Your task to perform on an android device: turn on location history Image 0: 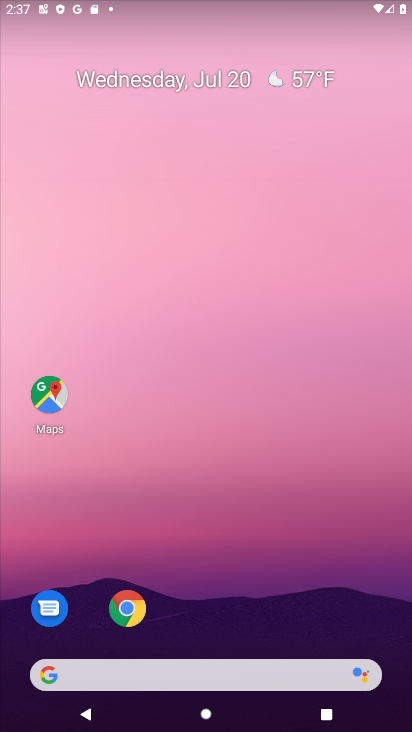
Step 0: drag from (193, 614) to (207, 234)
Your task to perform on an android device: turn on location history Image 1: 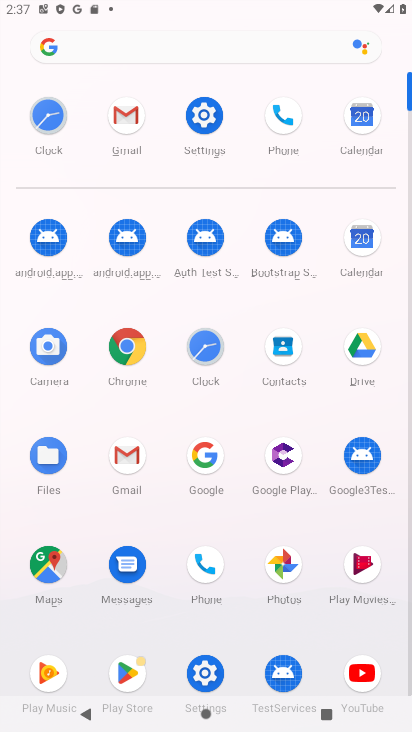
Step 1: click (200, 113)
Your task to perform on an android device: turn on location history Image 2: 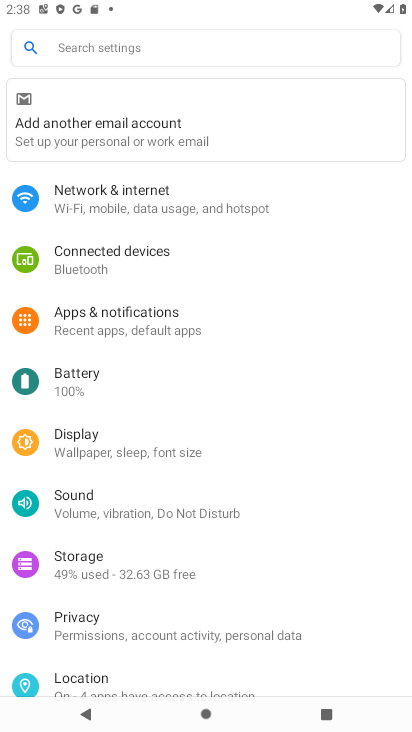
Step 2: click (79, 673)
Your task to perform on an android device: turn on location history Image 3: 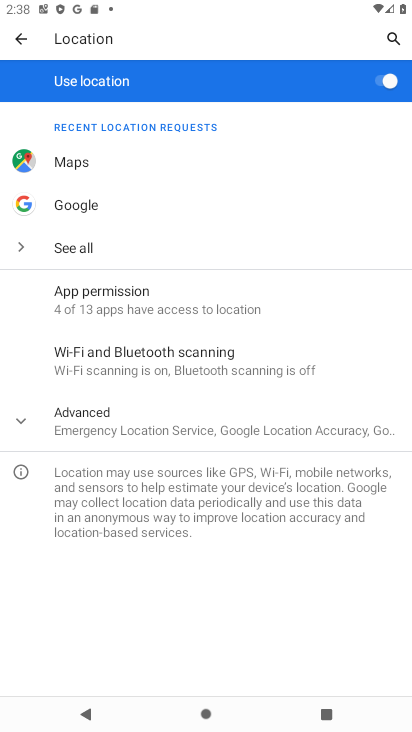
Step 3: click (118, 431)
Your task to perform on an android device: turn on location history Image 4: 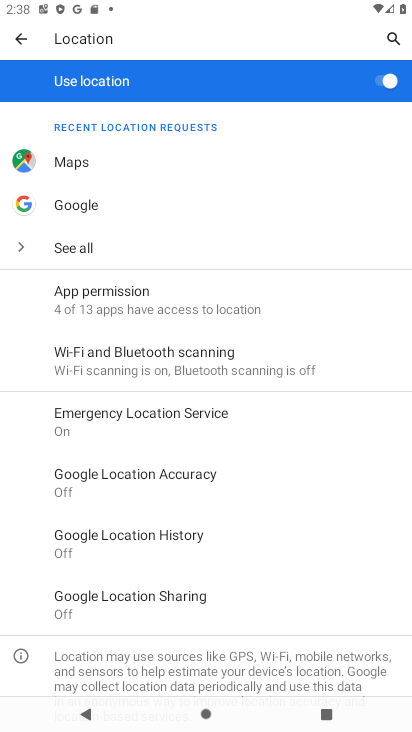
Step 4: click (68, 543)
Your task to perform on an android device: turn on location history Image 5: 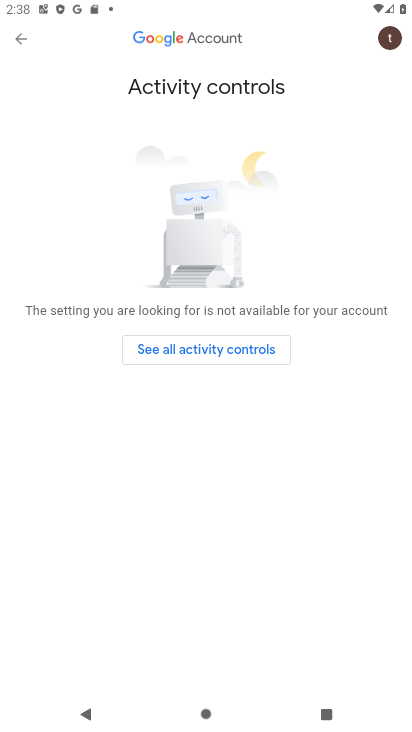
Step 5: click (255, 354)
Your task to perform on an android device: turn on location history Image 6: 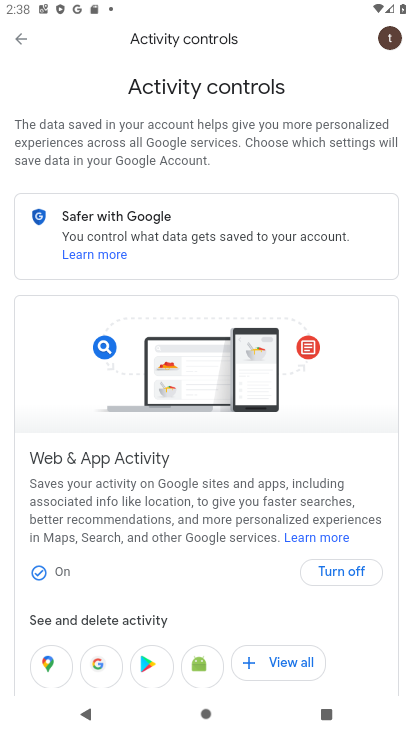
Step 6: task complete